Your task to perform on an android device: What is the recent news? Image 0: 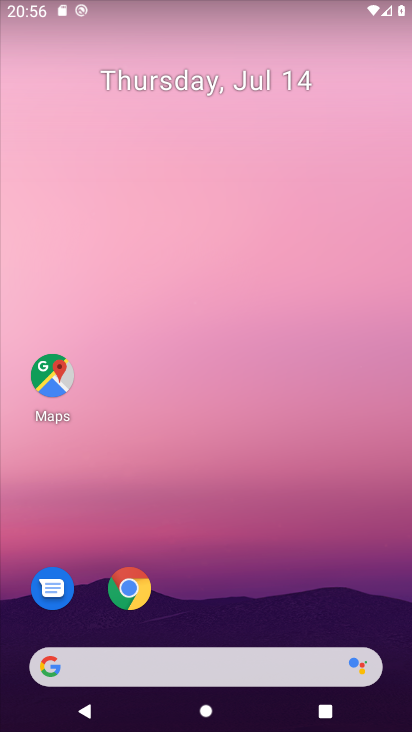
Step 0: drag from (1, 228) to (410, 392)
Your task to perform on an android device: What is the recent news? Image 1: 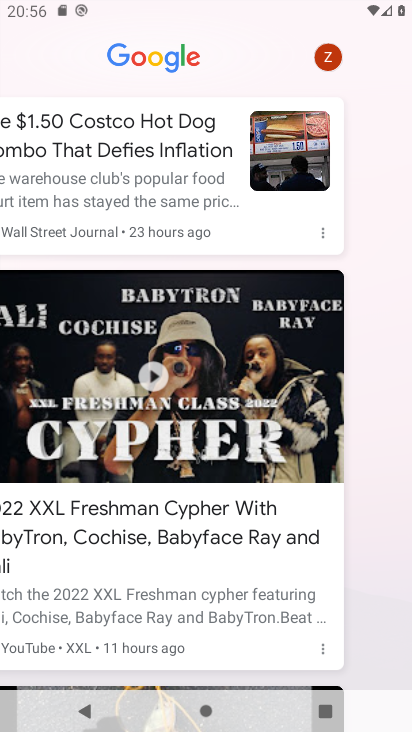
Step 1: task complete